Your task to perform on an android device: open sync settings in chrome Image 0: 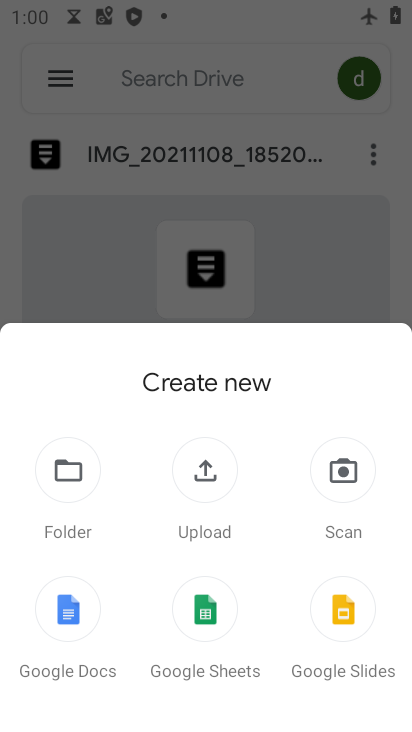
Step 0: press home button
Your task to perform on an android device: open sync settings in chrome Image 1: 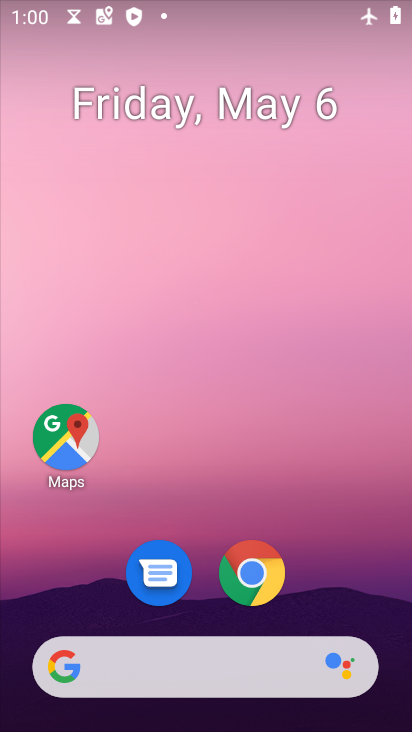
Step 1: drag from (310, 611) to (345, 261)
Your task to perform on an android device: open sync settings in chrome Image 2: 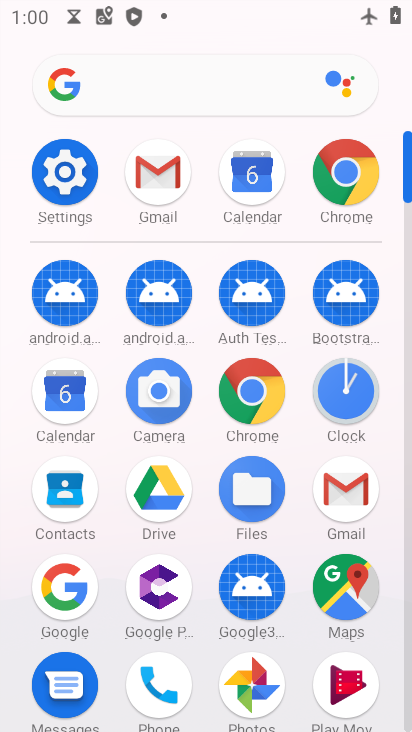
Step 2: click (244, 382)
Your task to perform on an android device: open sync settings in chrome Image 3: 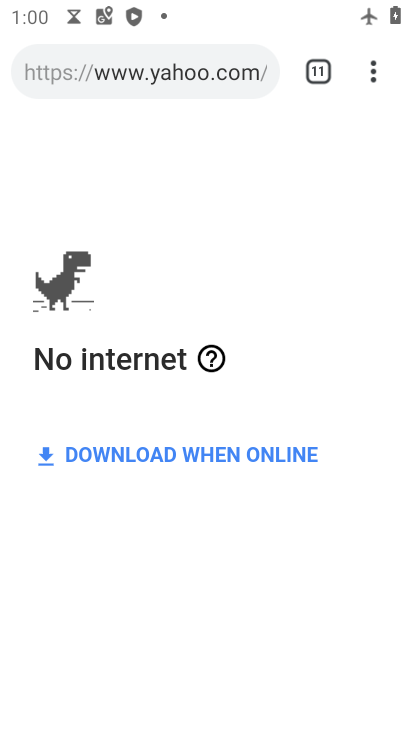
Step 3: click (354, 78)
Your task to perform on an android device: open sync settings in chrome Image 4: 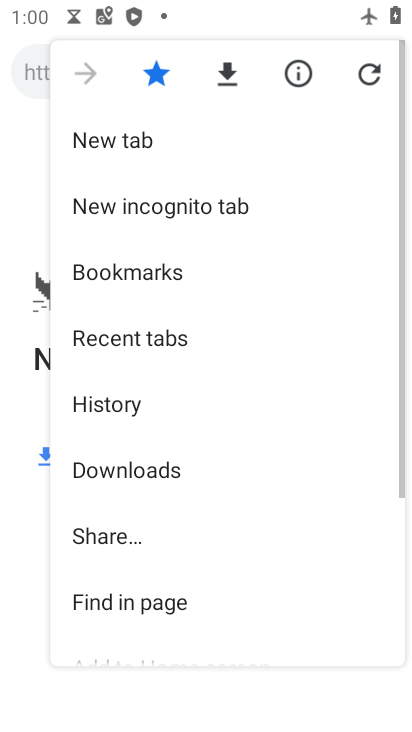
Step 4: drag from (176, 625) to (212, 254)
Your task to perform on an android device: open sync settings in chrome Image 5: 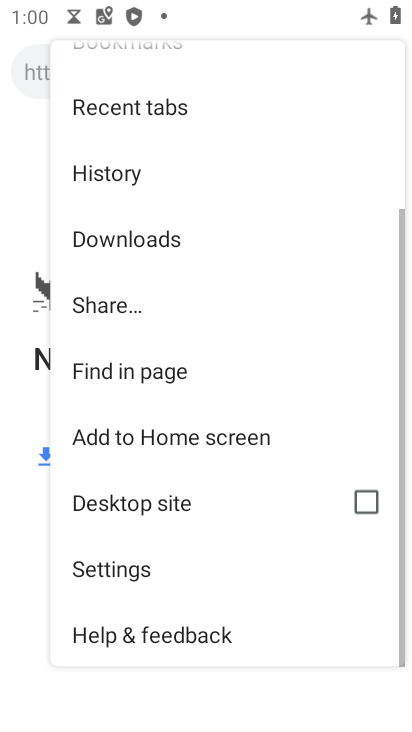
Step 5: click (145, 562)
Your task to perform on an android device: open sync settings in chrome Image 6: 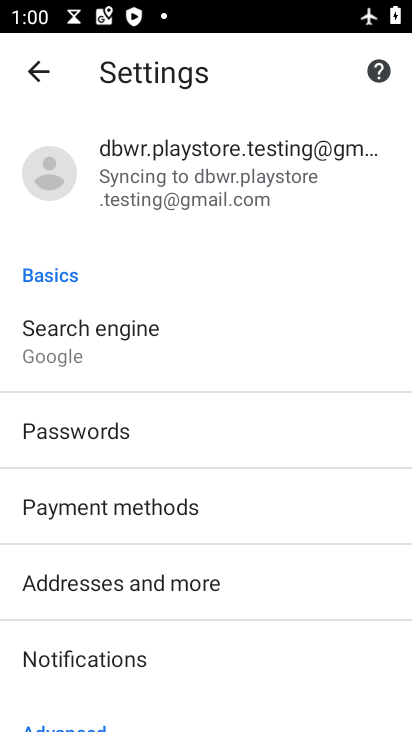
Step 6: click (193, 188)
Your task to perform on an android device: open sync settings in chrome Image 7: 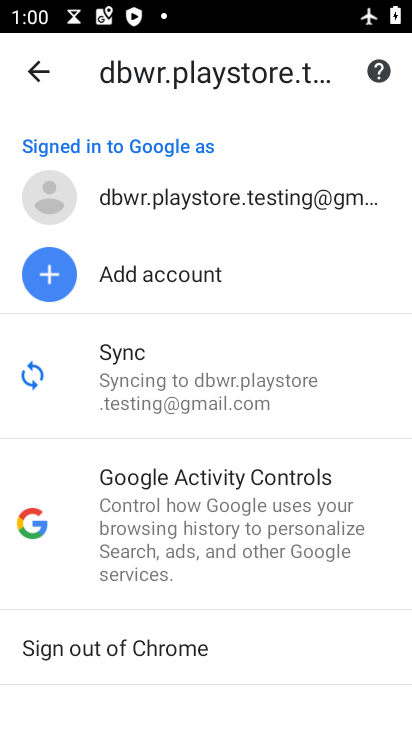
Step 7: click (200, 390)
Your task to perform on an android device: open sync settings in chrome Image 8: 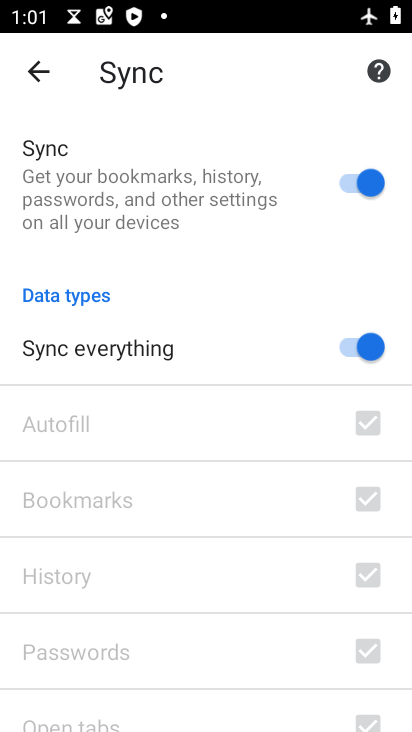
Step 8: task complete